Your task to perform on an android device: Open internet settings Image 0: 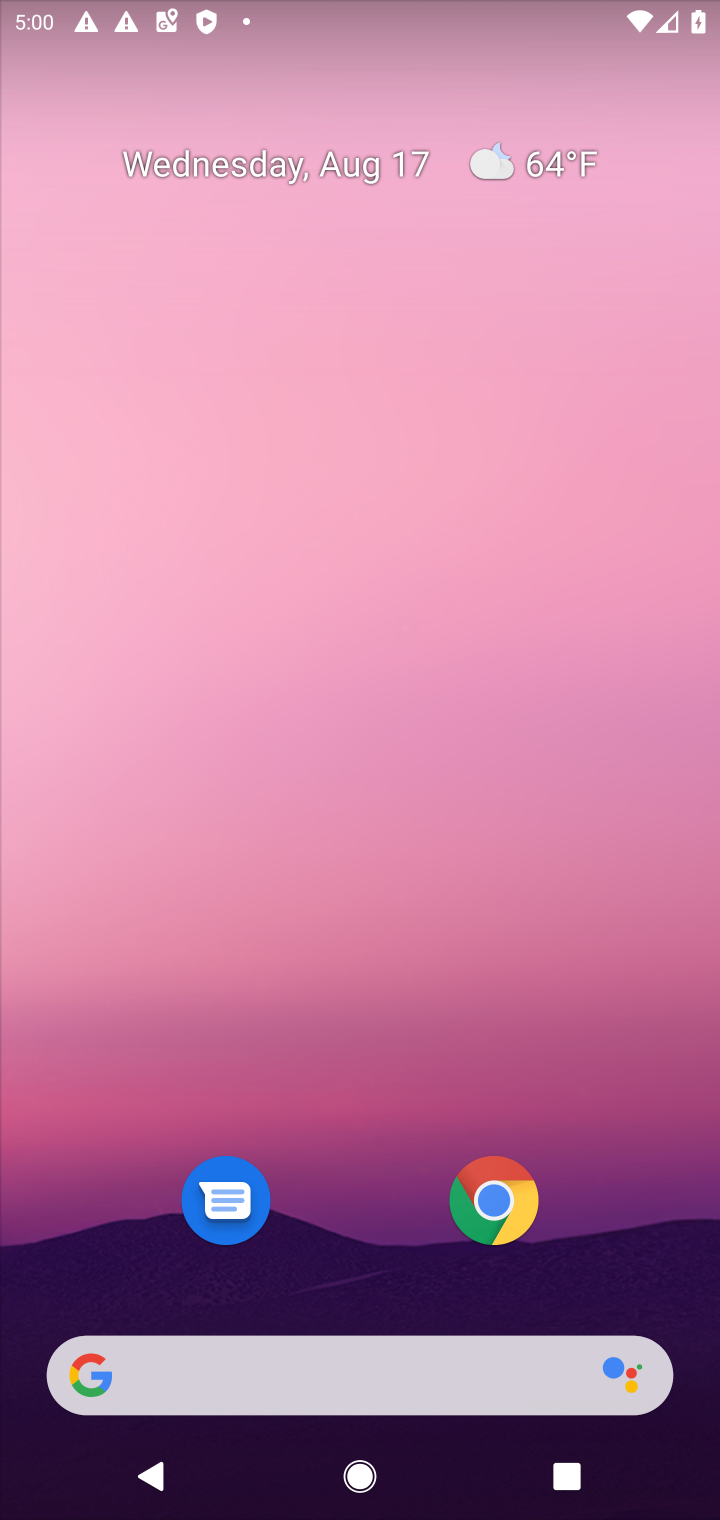
Step 0: press home button
Your task to perform on an android device: Open internet settings Image 1: 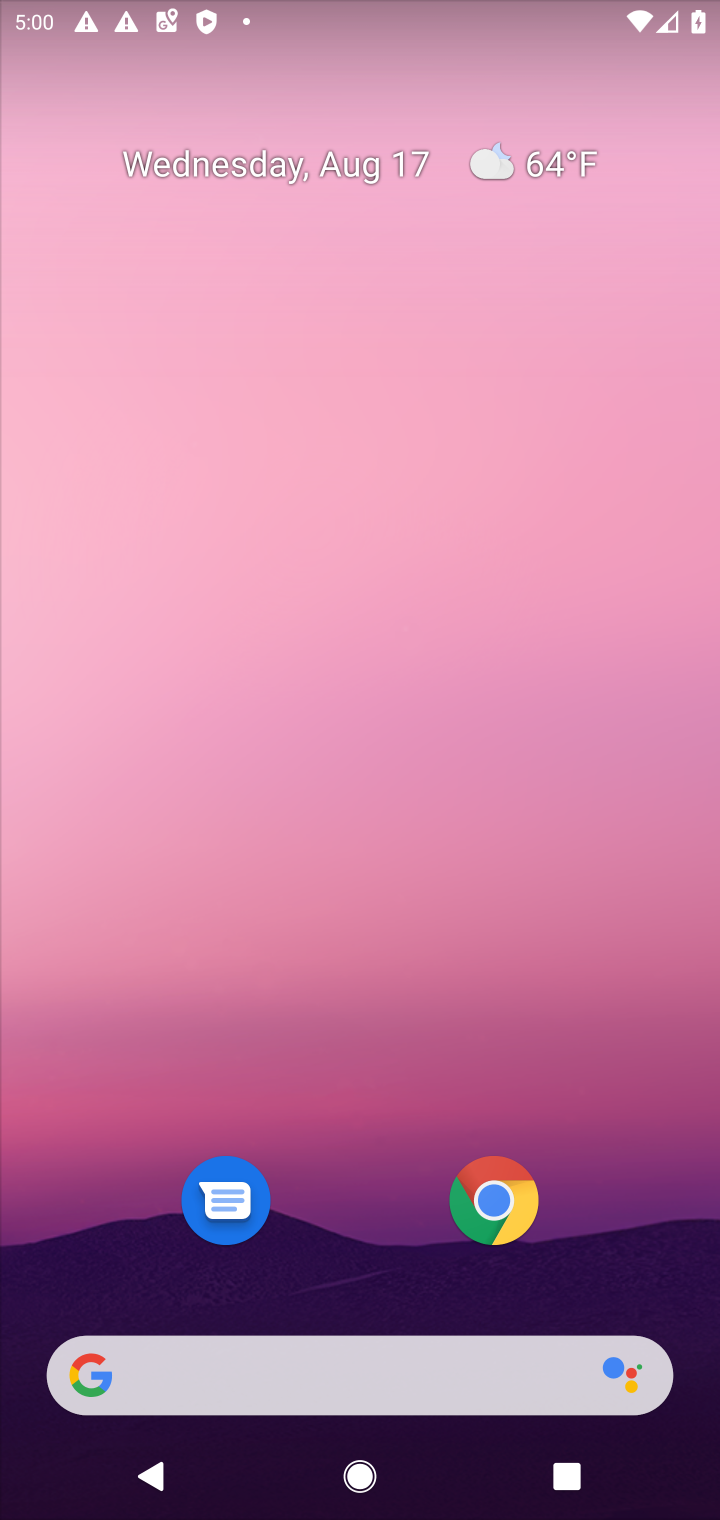
Step 1: click (501, 155)
Your task to perform on an android device: Open internet settings Image 2: 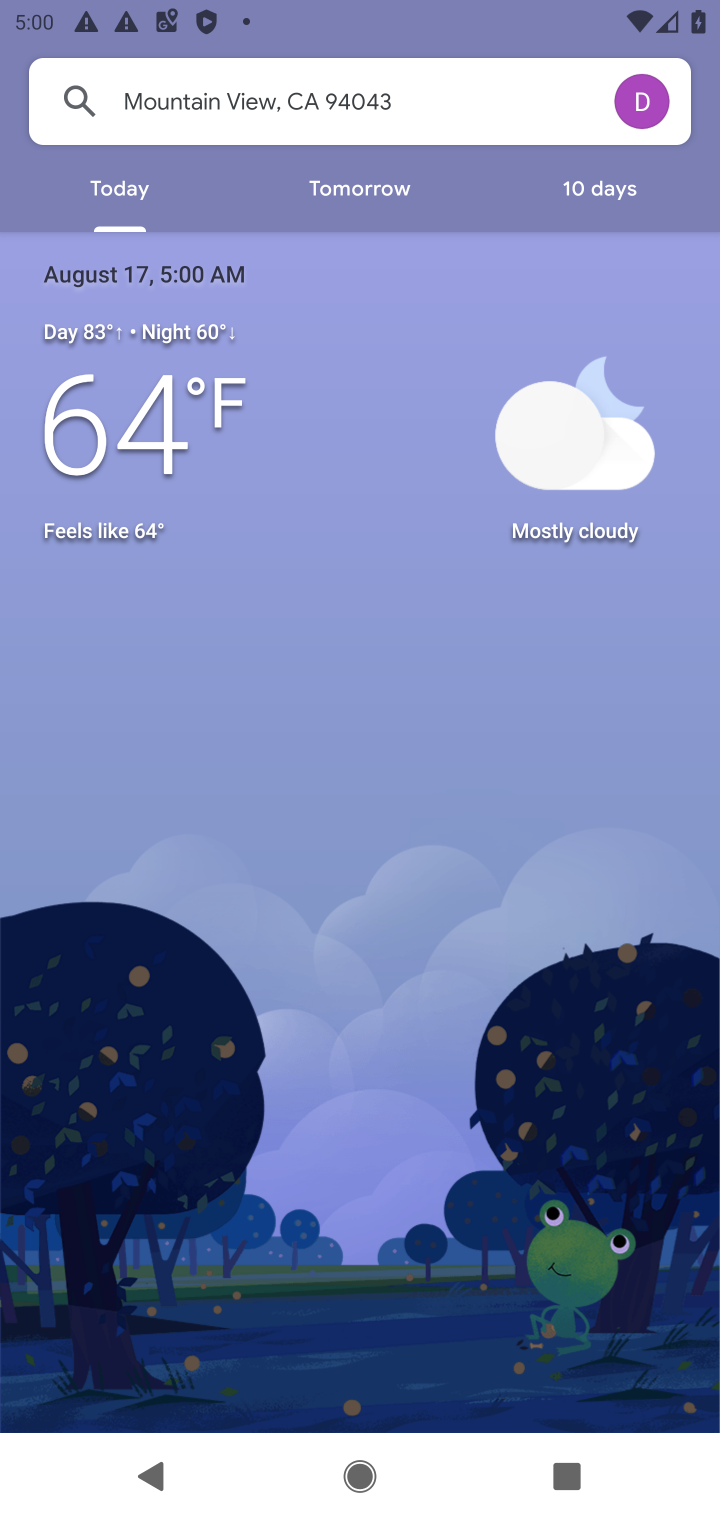
Step 2: press home button
Your task to perform on an android device: Open internet settings Image 3: 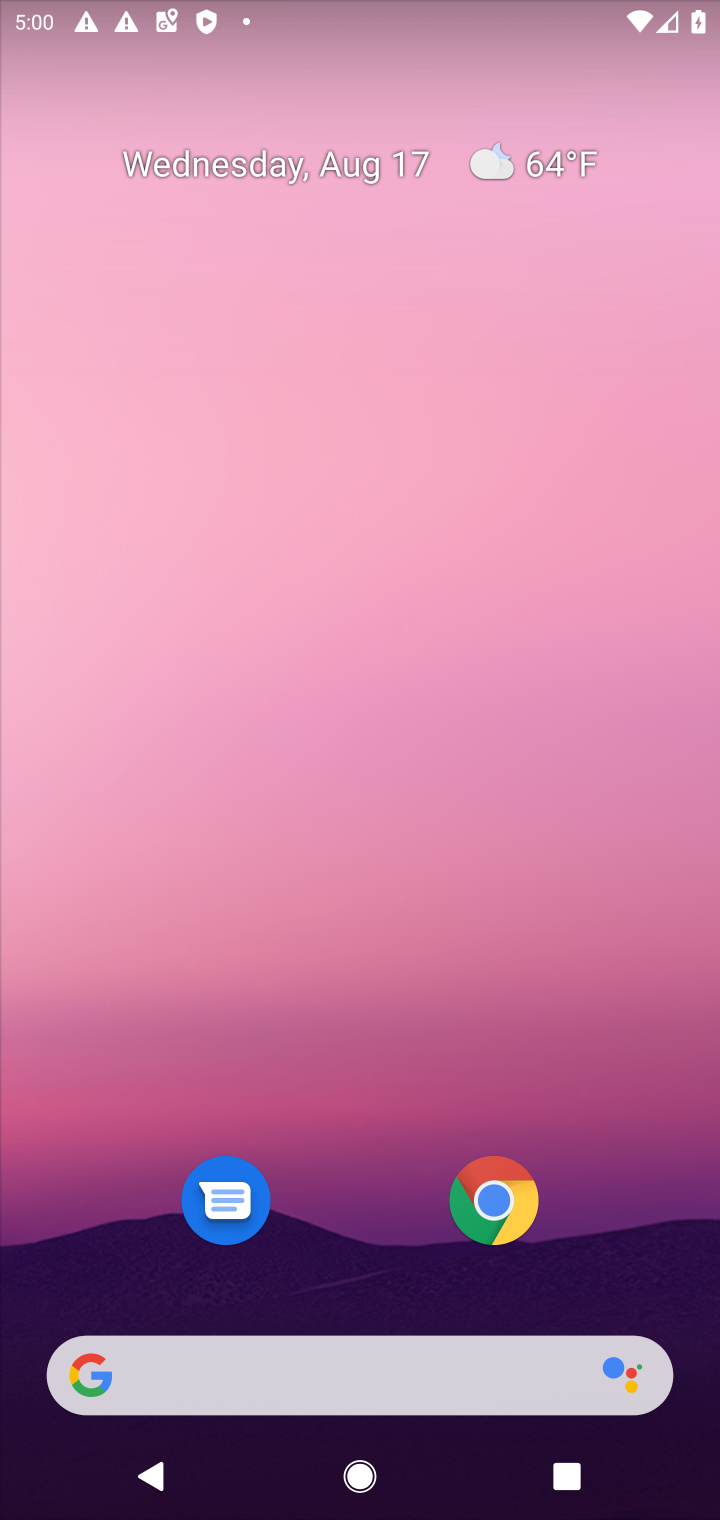
Step 3: drag from (424, 981) to (437, 354)
Your task to perform on an android device: Open internet settings Image 4: 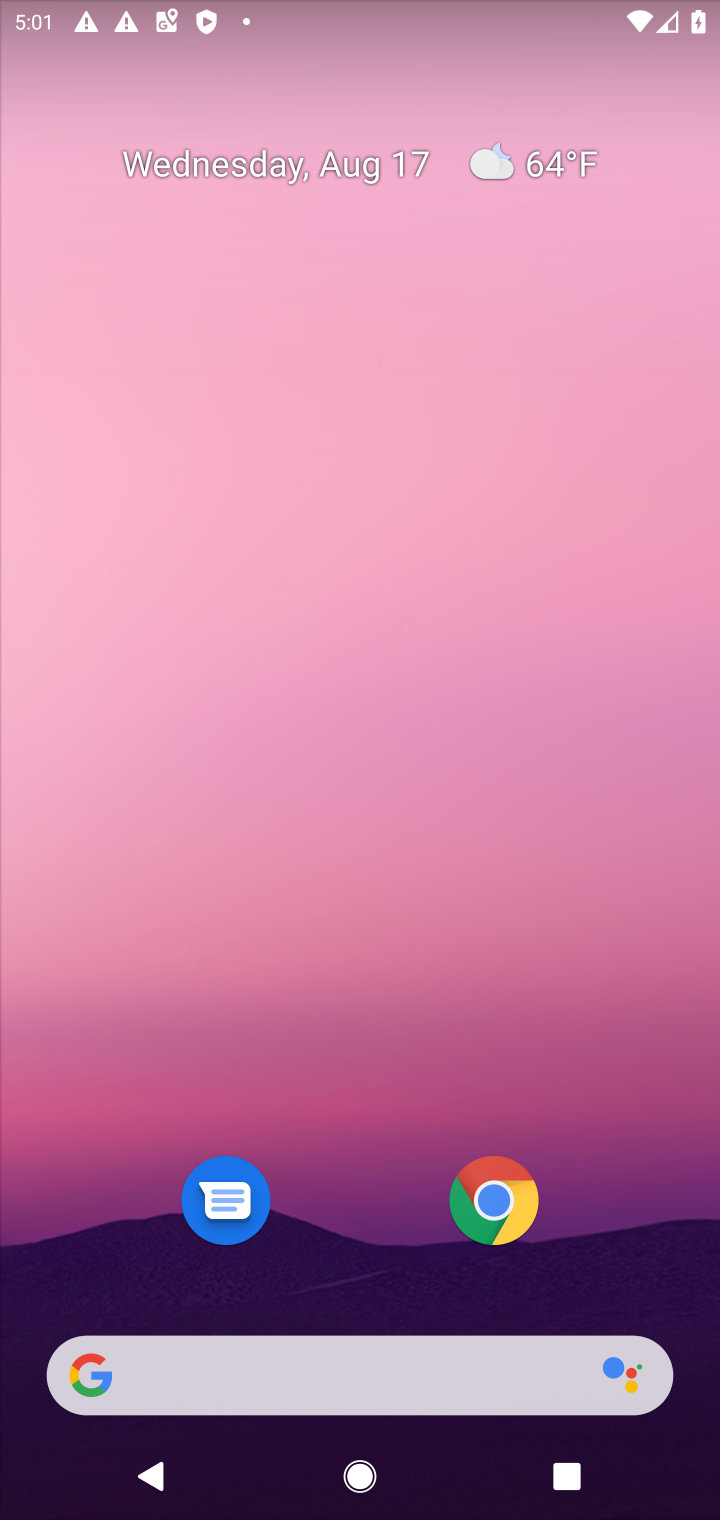
Step 4: drag from (390, 1298) to (389, 81)
Your task to perform on an android device: Open internet settings Image 5: 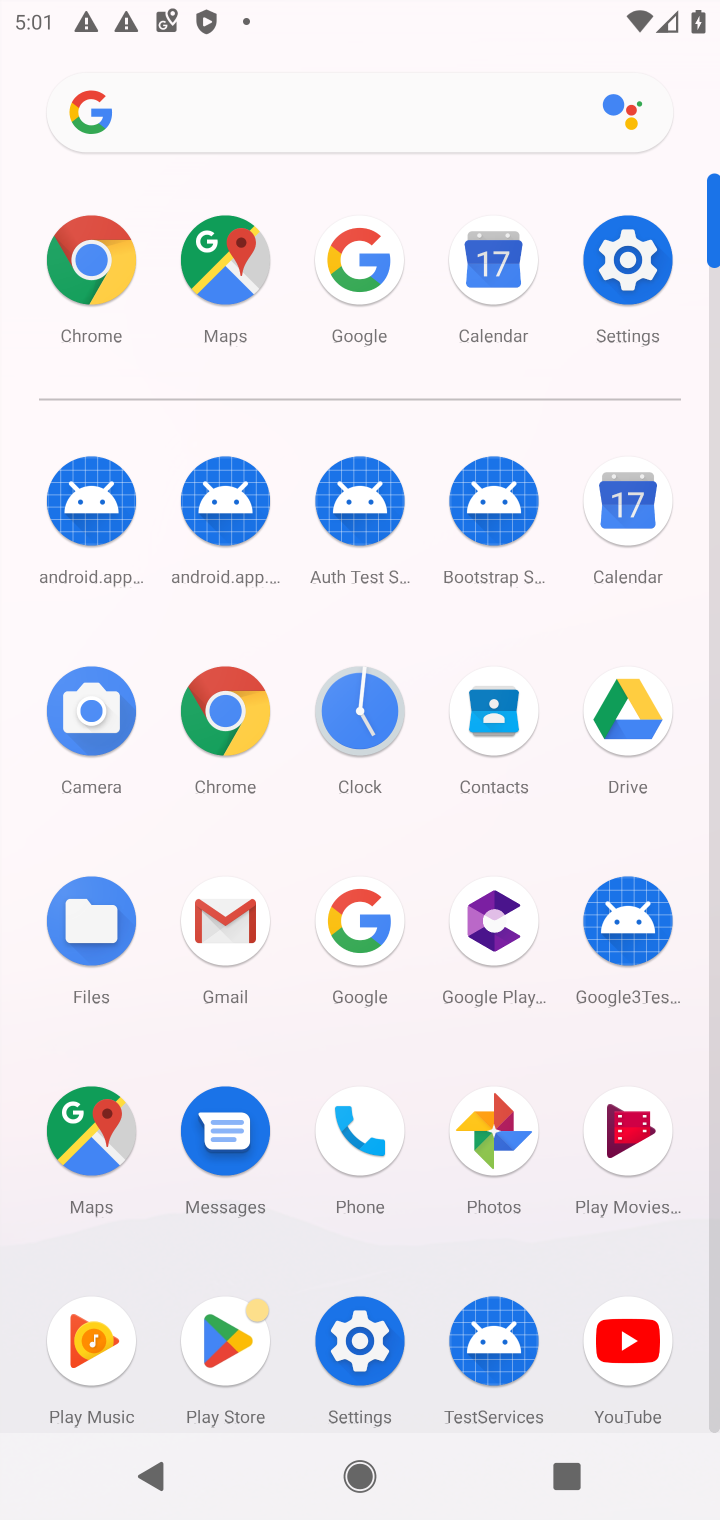
Step 5: click (620, 260)
Your task to perform on an android device: Open internet settings Image 6: 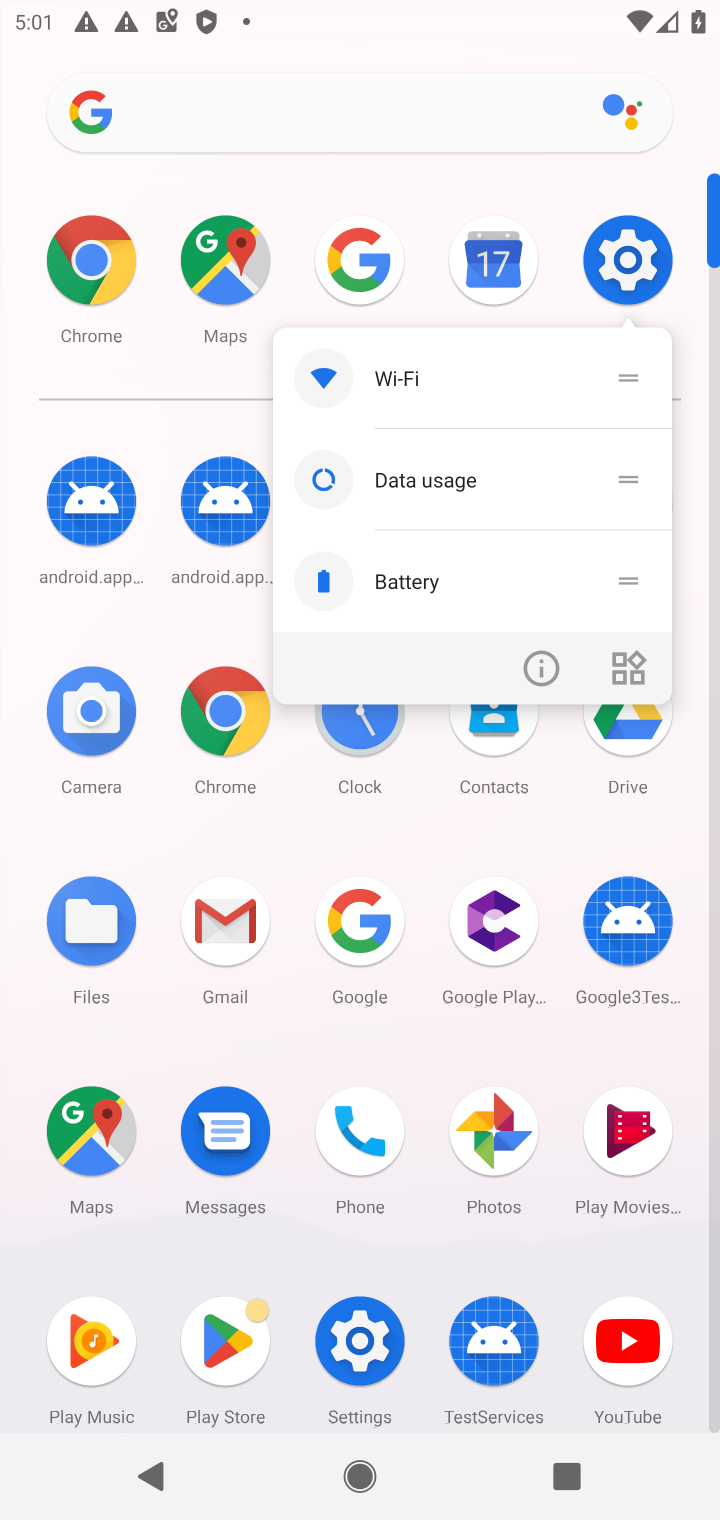
Step 6: click (635, 265)
Your task to perform on an android device: Open internet settings Image 7: 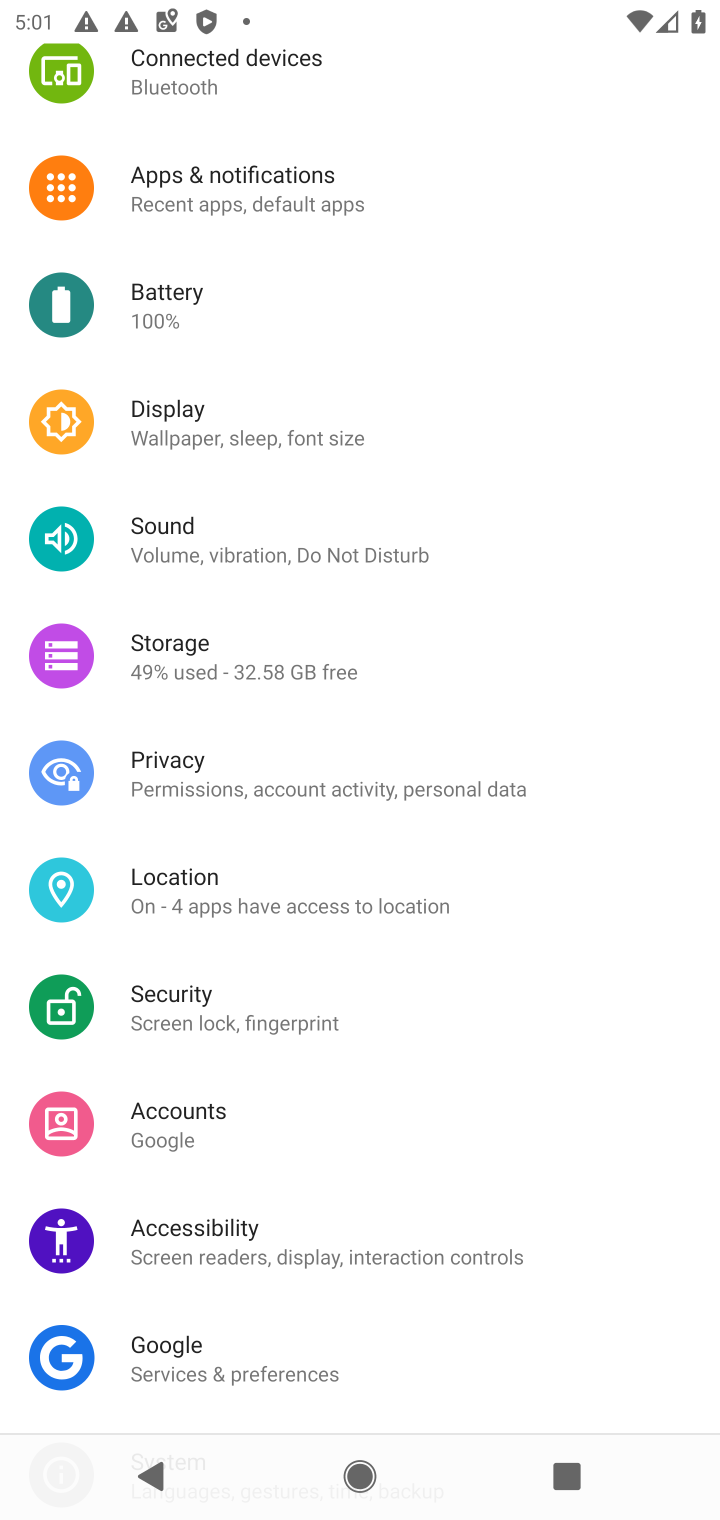
Step 7: drag from (167, 289) to (234, 1205)
Your task to perform on an android device: Open internet settings Image 8: 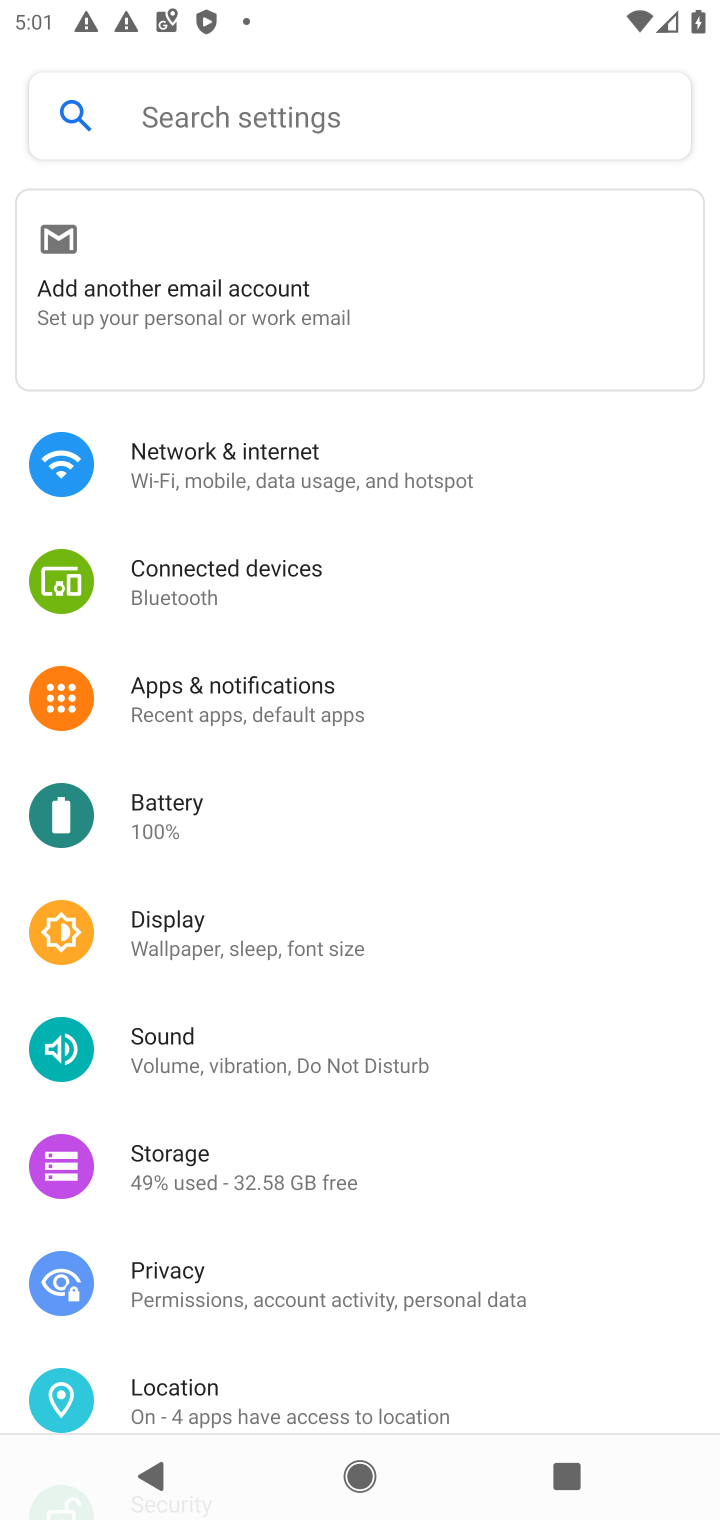
Step 8: click (238, 458)
Your task to perform on an android device: Open internet settings Image 9: 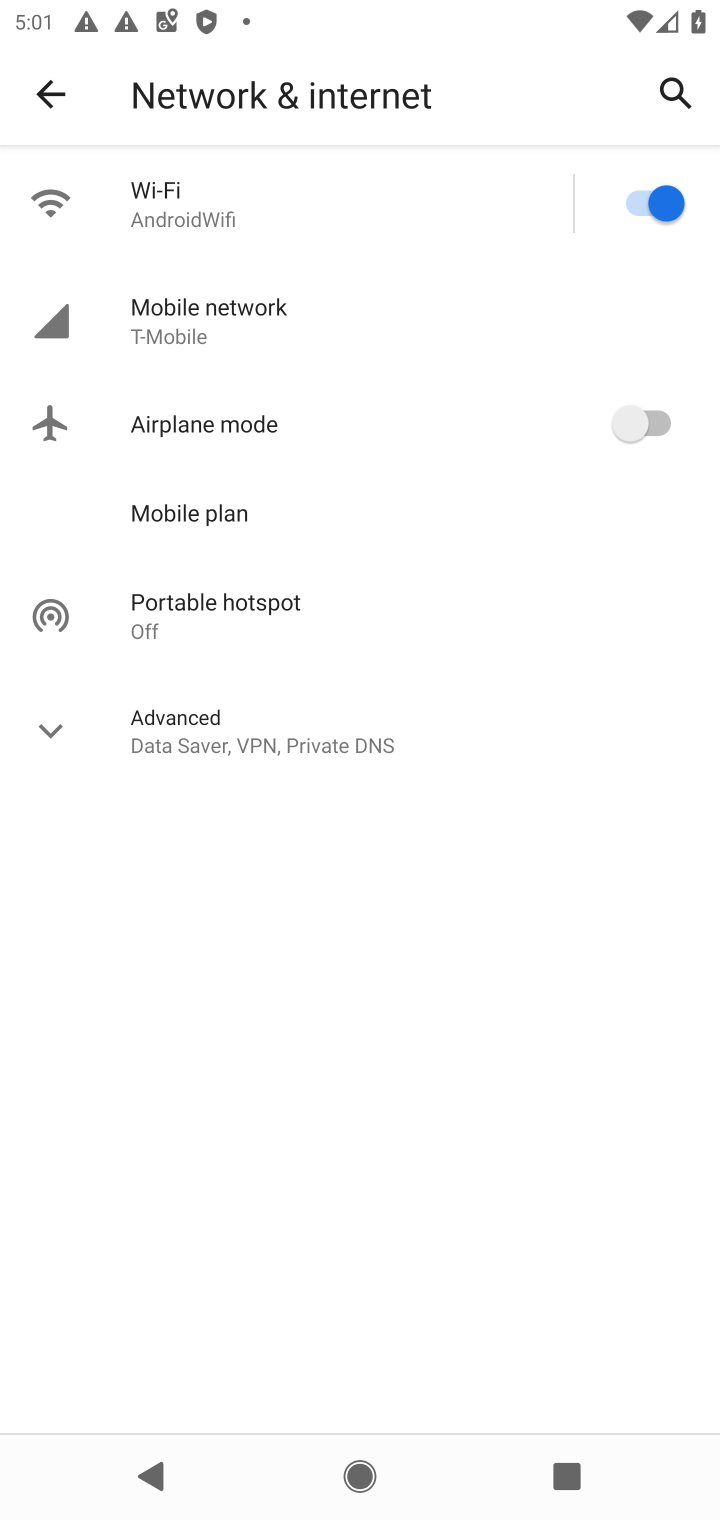
Step 9: task complete